Your task to perform on an android device: change the clock style Image 0: 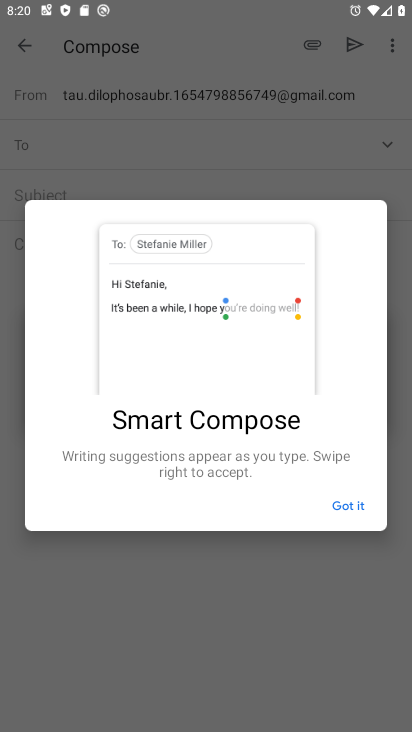
Step 0: press home button
Your task to perform on an android device: change the clock style Image 1: 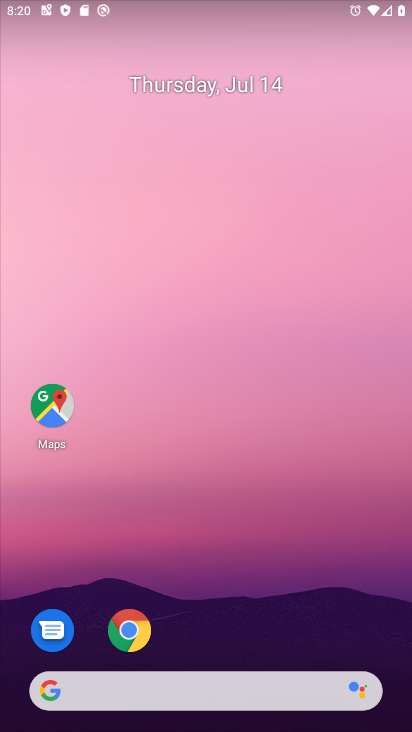
Step 1: drag from (240, 702) to (245, 364)
Your task to perform on an android device: change the clock style Image 2: 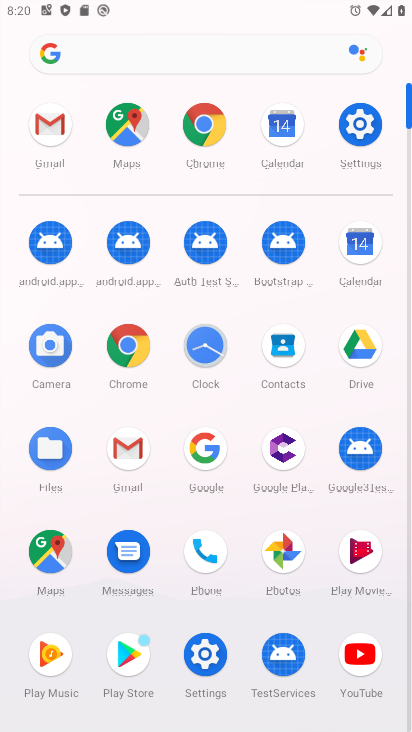
Step 2: click (201, 350)
Your task to perform on an android device: change the clock style Image 3: 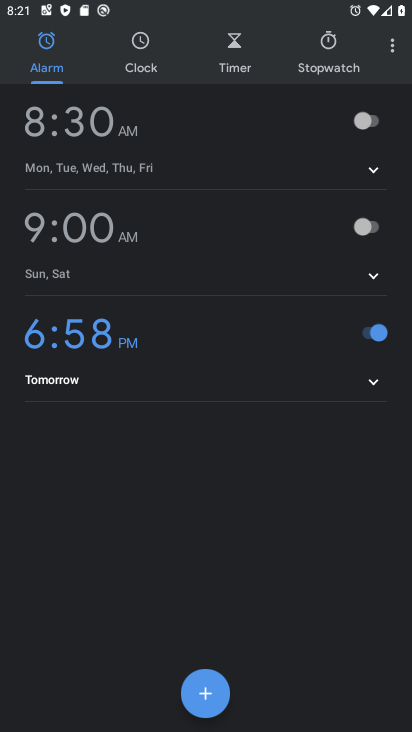
Step 3: click (397, 46)
Your task to perform on an android device: change the clock style Image 4: 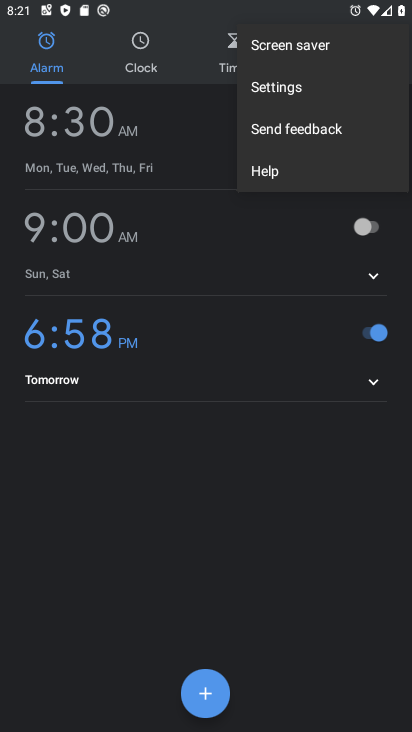
Step 4: click (285, 86)
Your task to perform on an android device: change the clock style Image 5: 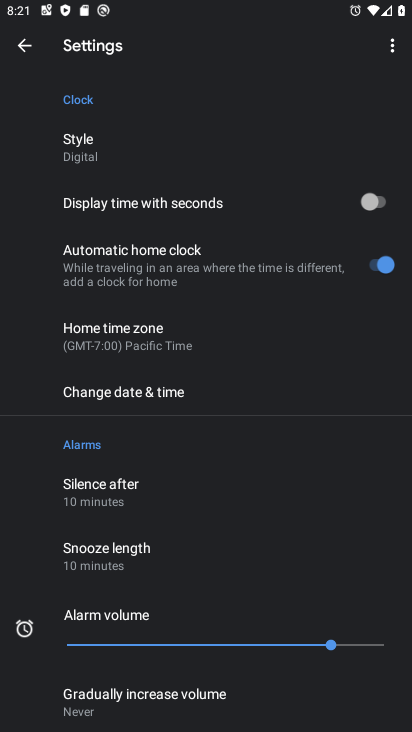
Step 5: click (81, 156)
Your task to perform on an android device: change the clock style Image 6: 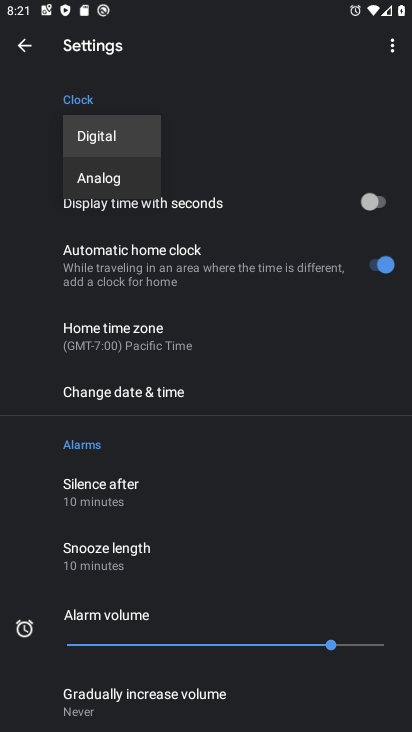
Step 6: click (102, 174)
Your task to perform on an android device: change the clock style Image 7: 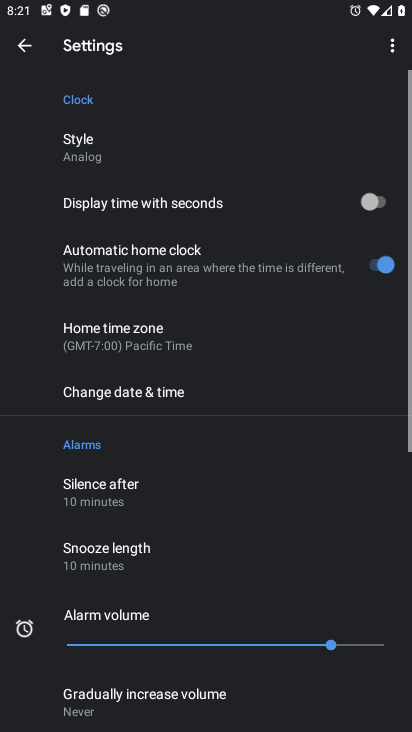
Step 7: task complete